Your task to perform on an android device: change the upload size in google photos Image 0: 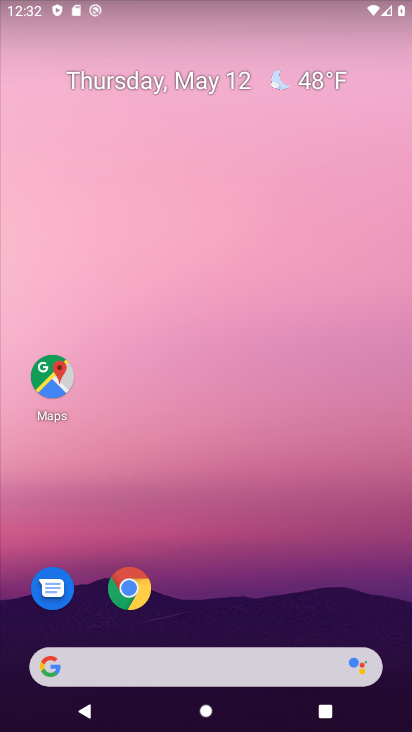
Step 0: drag from (357, 551) to (118, 104)
Your task to perform on an android device: change the upload size in google photos Image 1: 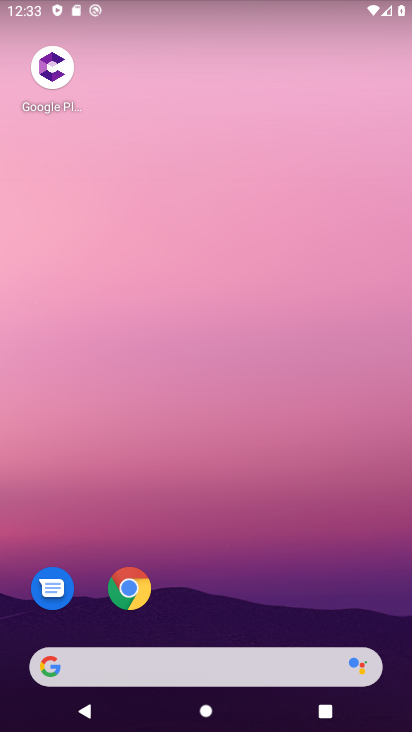
Step 1: drag from (258, 627) to (87, 216)
Your task to perform on an android device: change the upload size in google photos Image 2: 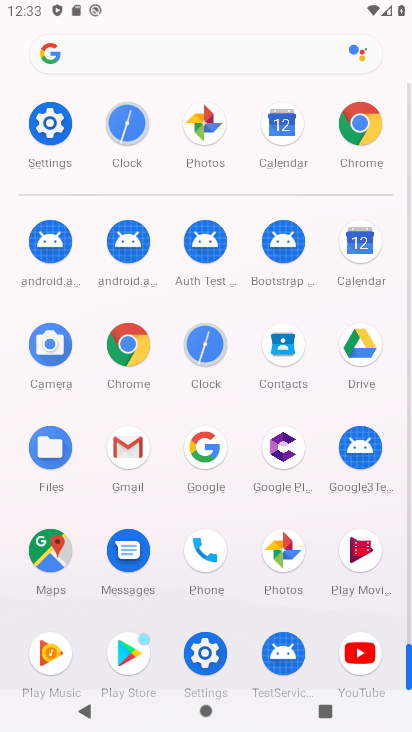
Step 2: click (274, 536)
Your task to perform on an android device: change the upload size in google photos Image 3: 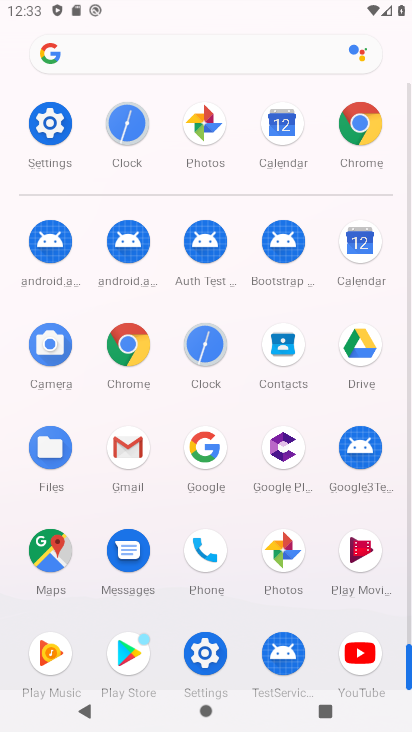
Step 3: click (274, 536)
Your task to perform on an android device: change the upload size in google photos Image 4: 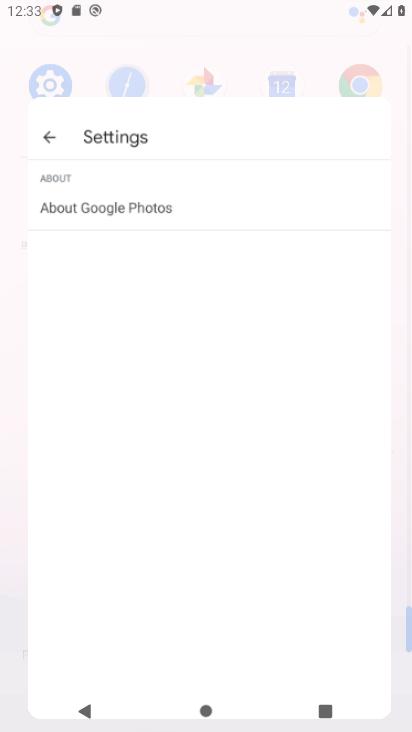
Step 4: click (276, 544)
Your task to perform on an android device: change the upload size in google photos Image 5: 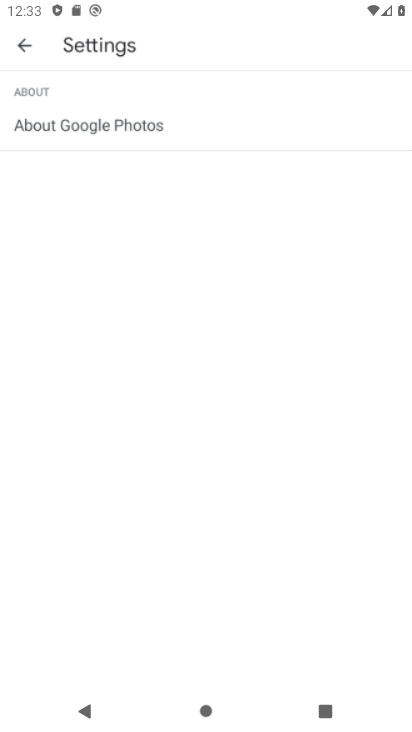
Step 5: click (276, 544)
Your task to perform on an android device: change the upload size in google photos Image 6: 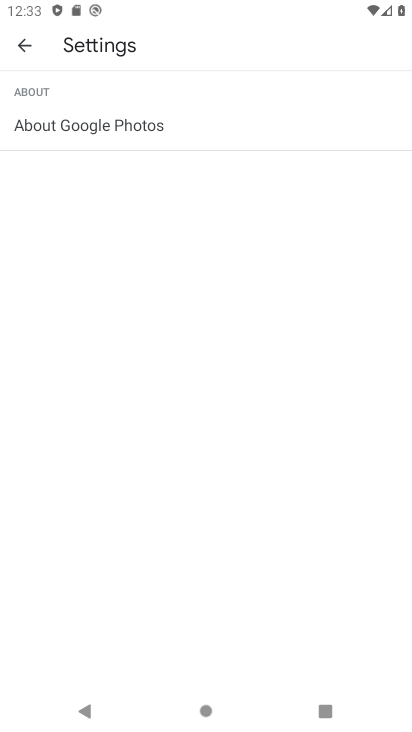
Step 6: click (18, 37)
Your task to perform on an android device: change the upload size in google photos Image 7: 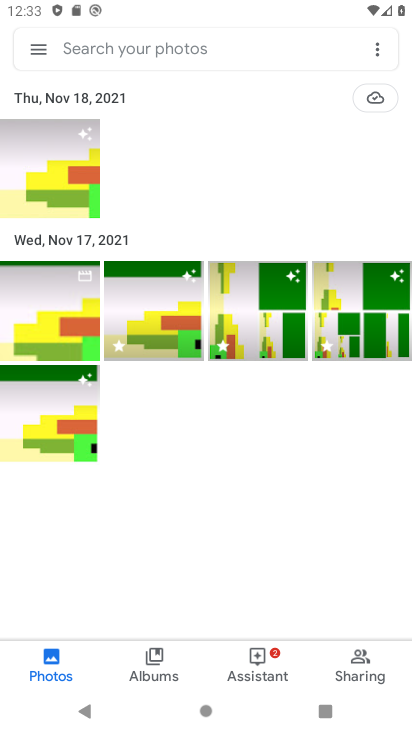
Step 7: click (34, 47)
Your task to perform on an android device: change the upload size in google photos Image 8: 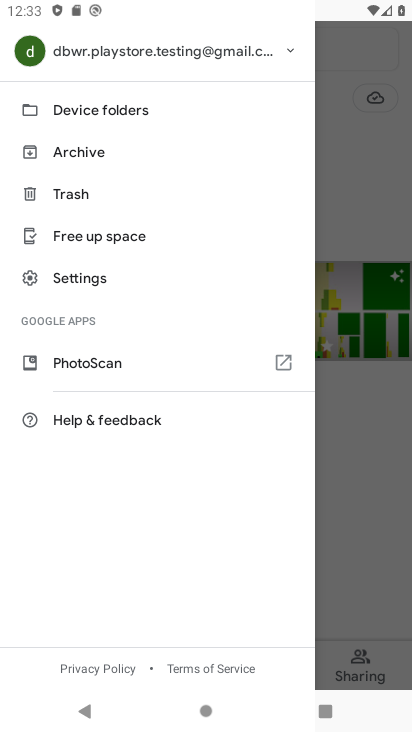
Step 8: click (92, 278)
Your task to perform on an android device: change the upload size in google photos Image 9: 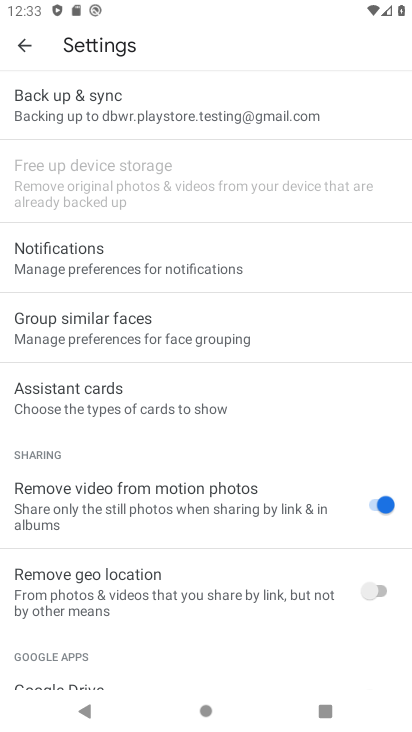
Step 9: click (108, 145)
Your task to perform on an android device: change the upload size in google photos Image 10: 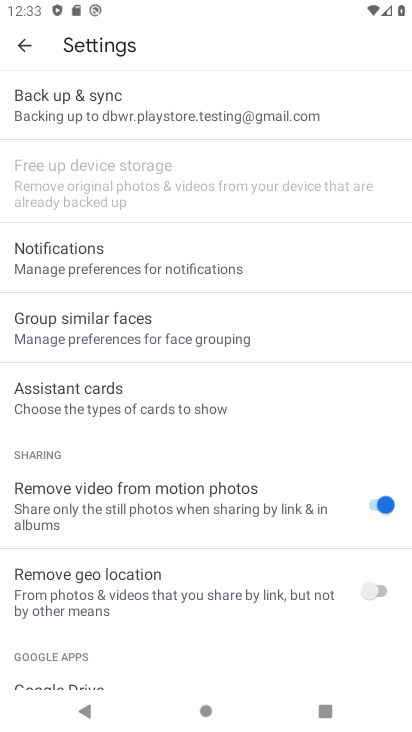
Step 10: click (105, 132)
Your task to perform on an android device: change the upload size in google photos Image 11: 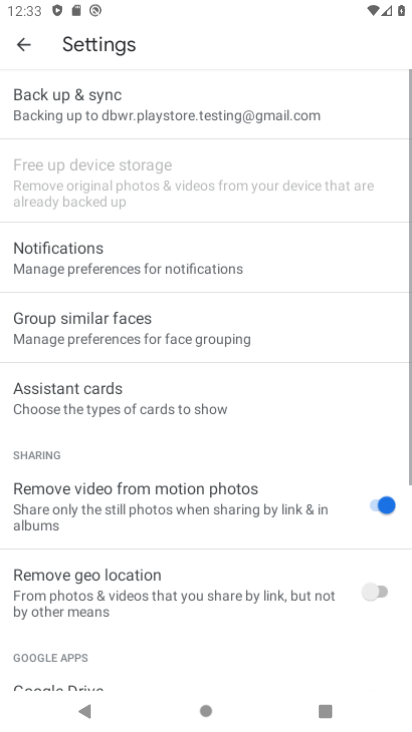
Step 11: click (105, 115)
Your task to perform on an android device: change the upload size in google photos Image 12: 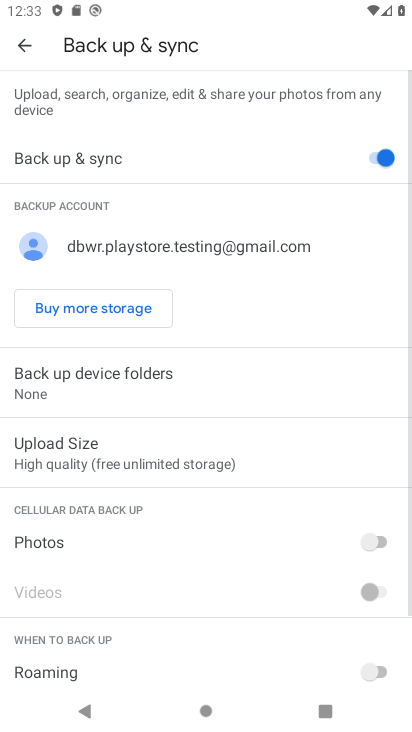
Step 12: click (80, 445)
Your task to perform on an android device: change the upload size in google photos Image 13: 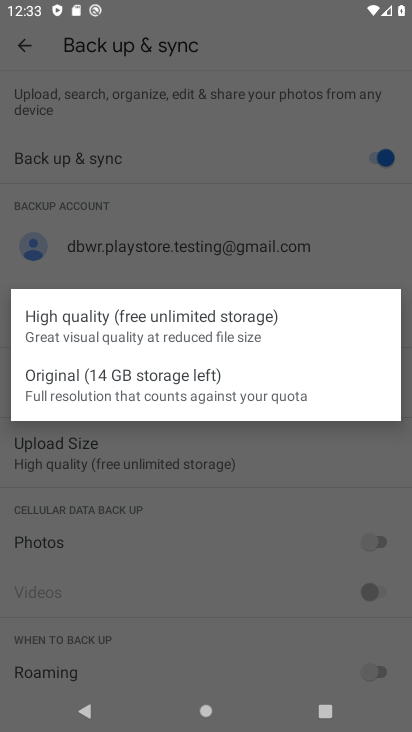
Step 13: click (108, 337)
Your task to perform on an android device: change the upload size in google photos Image 14: 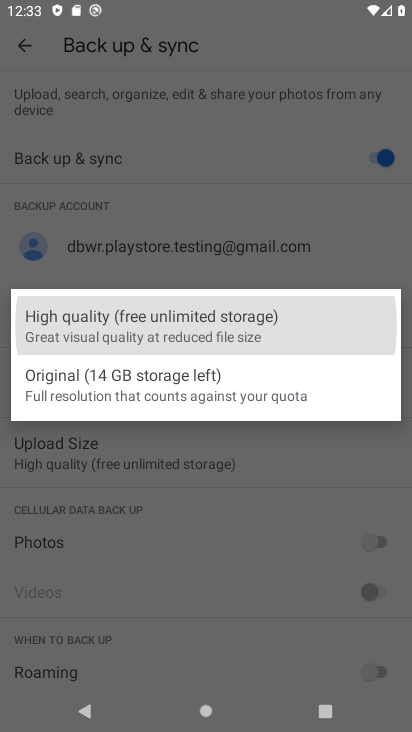
Step 14: click (109, 337)
Your task to perform on an android device: change the upload size in google photos Image 15: 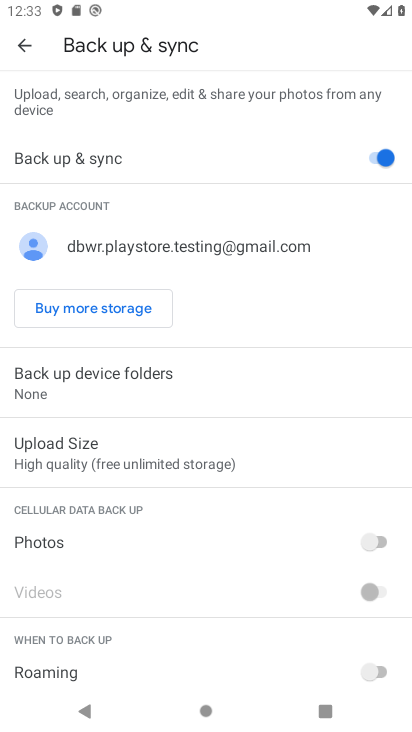
Step 15: click (109, 337)
Your task to perform on an android device: change the upload size in google photos Image 16: 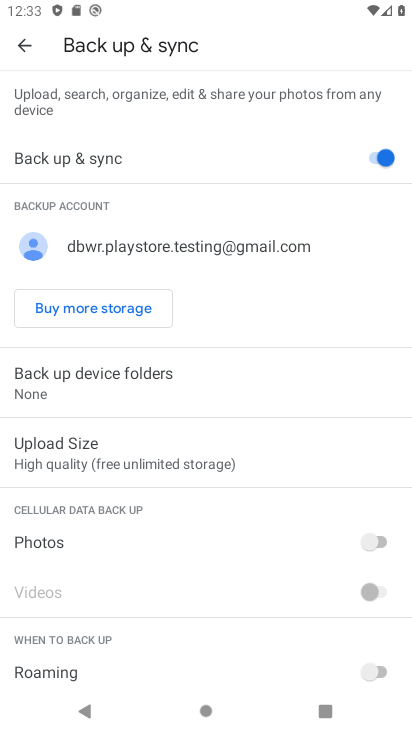
Step 16: task complete